Your task to perform on an android device: change your default location settings in chrome Image 0: 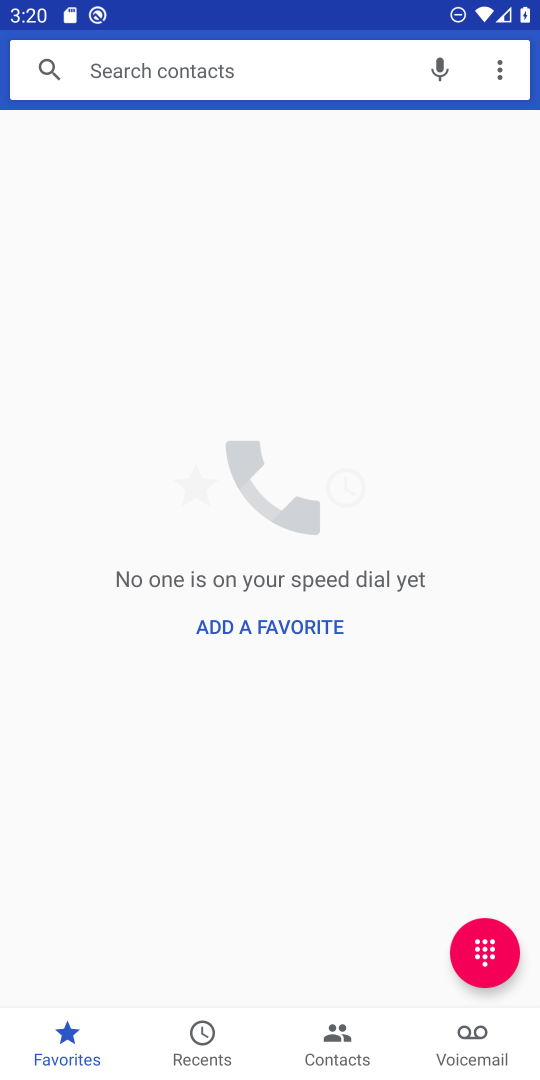
Step 0: press home button
Your task to perform on an android device: change your default location settings in chrome Image 1: 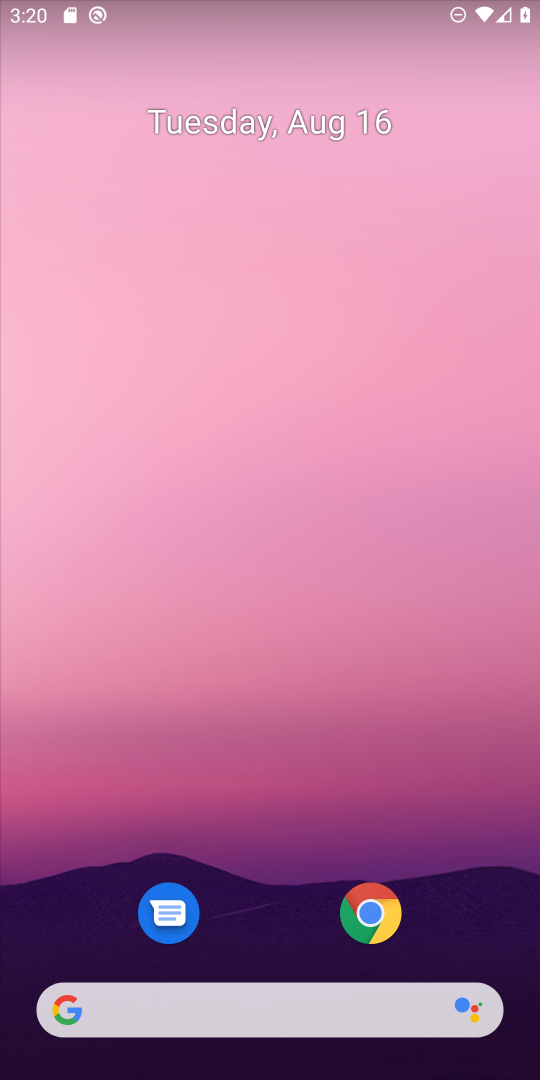
Step 1: click (373, 914)
Your task to perform on an android device: change your default location settings in chrome Image 2: 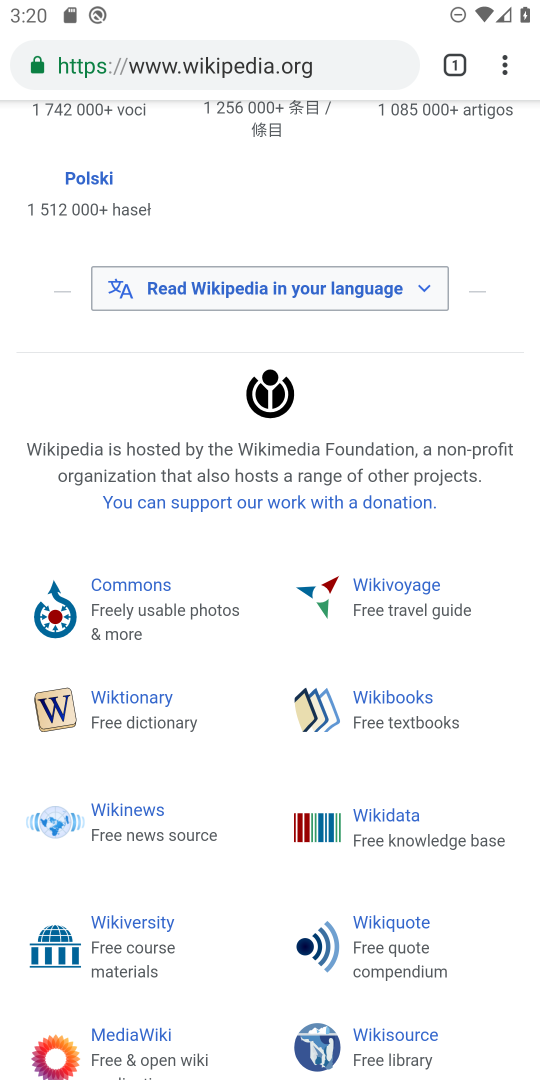
Step 2: click (499, 71)
Your task to perform on an android device: change your default location settings in chrome Image 3: 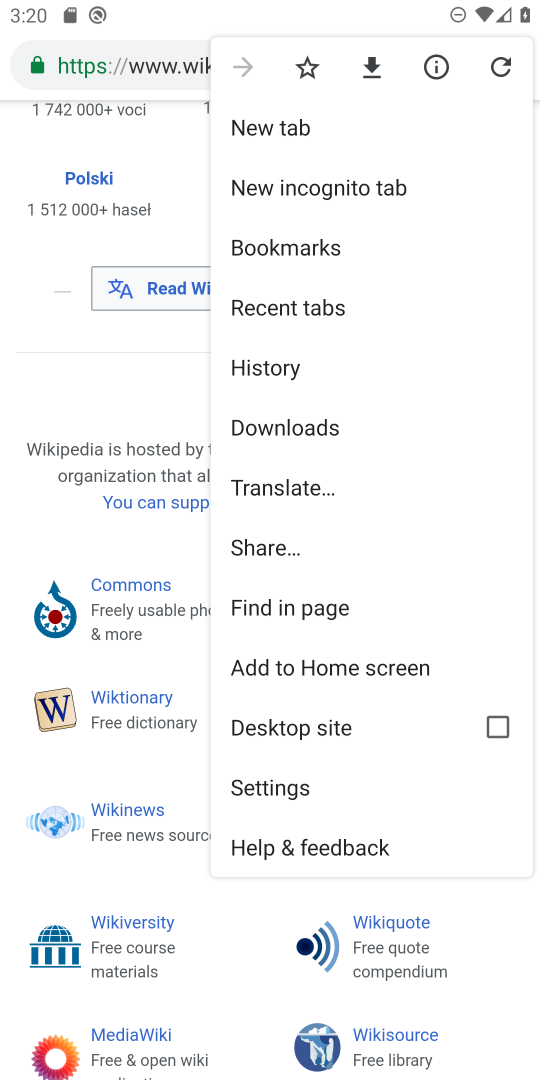
Step 3: click (287, 784)
Your task to perform on an android device: change your default location settings in chrome Image 4: 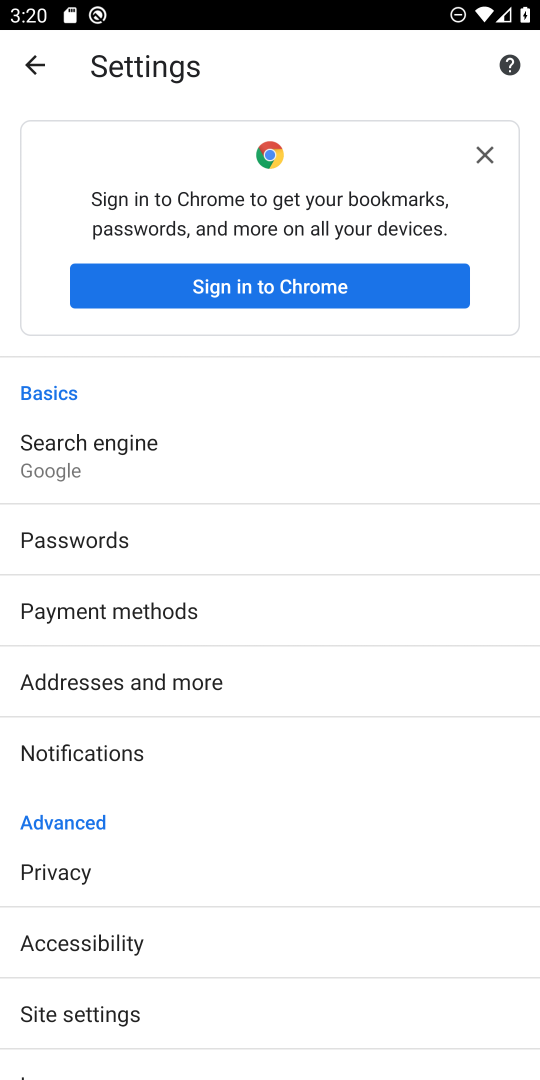
Step 4: drag from (260, 898) to (230, 458)
Your task to perform on an android device: change your default location settings in chrome Image 5: 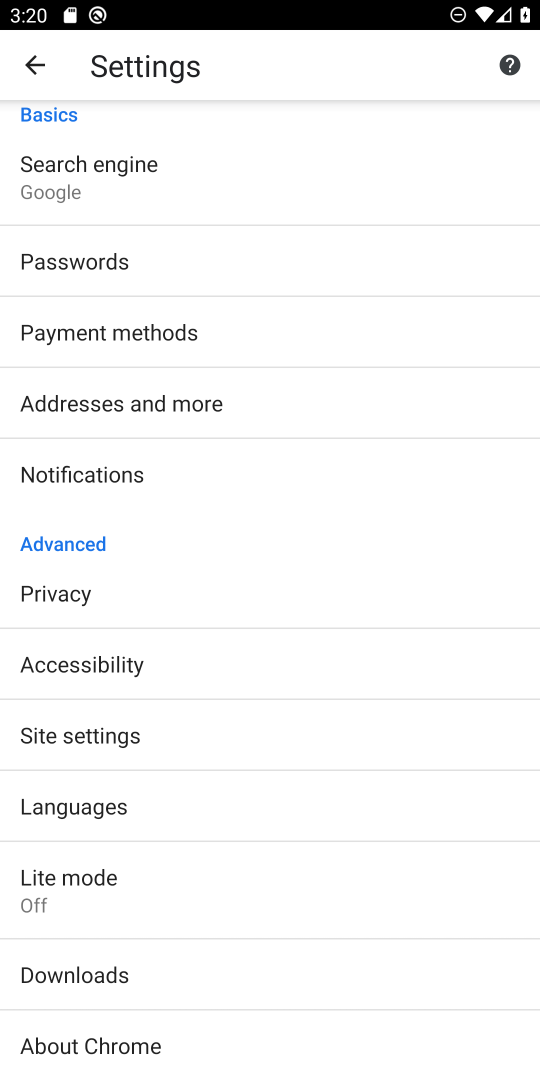
Step 5: click (93, 725)
Your task to perform on an android device: change your default location settings in chrome Image 6: 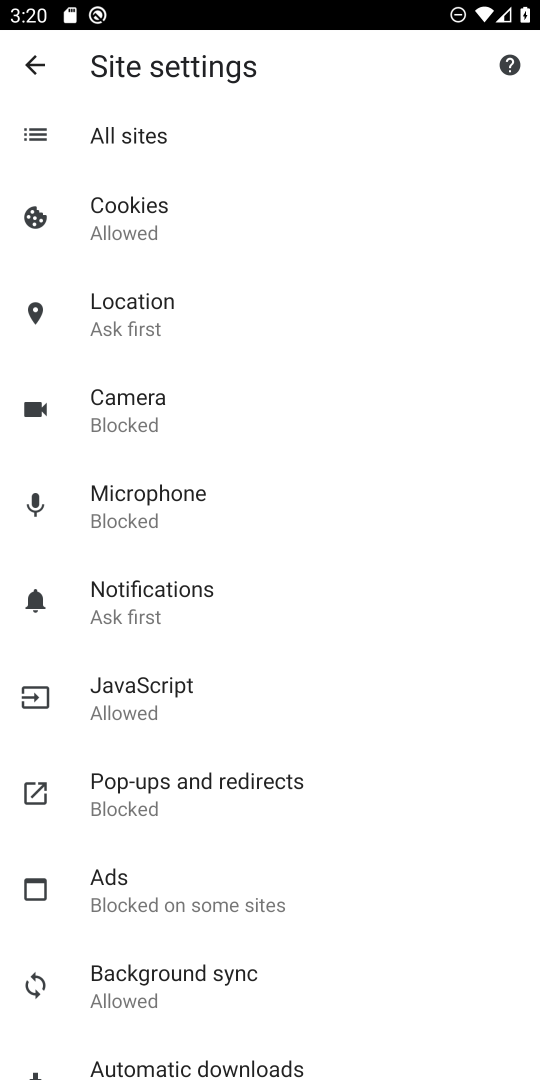
Step 6: click (133, 302)
Your task to perform on an android device: change your default location settings in chrome Image 7: 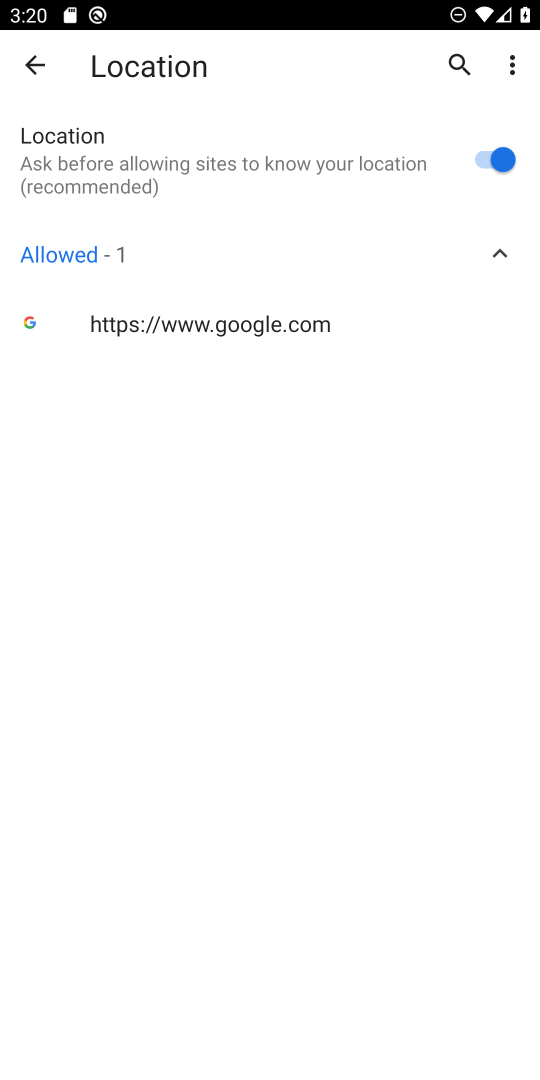
Step 7: click (479, 156)
Your task to perform on an android device: change your default location settings in chrome Image 8: 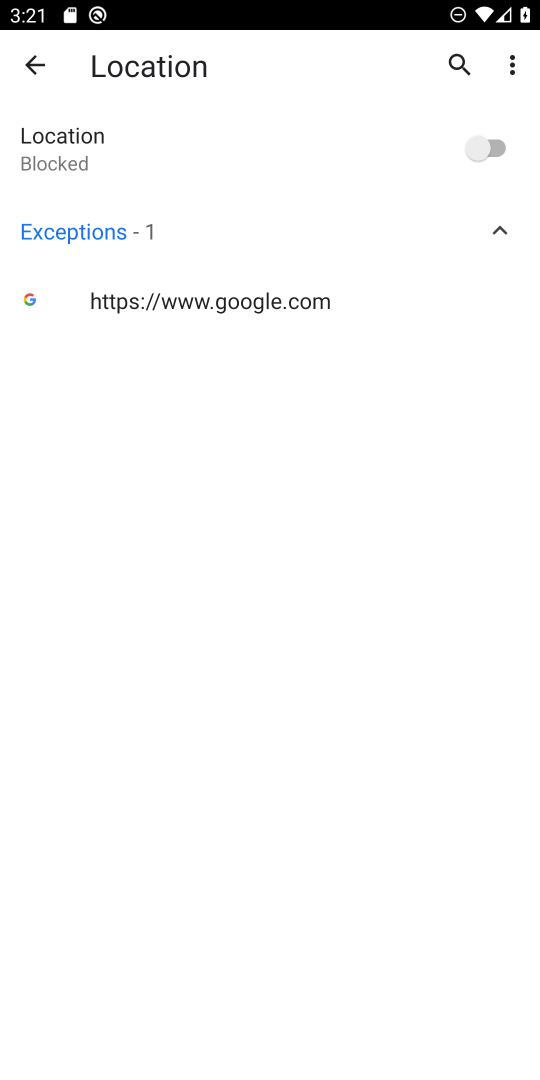
Step 8: task complete